Your task to perform on an android device: turn off improve location accuracy Image 0: 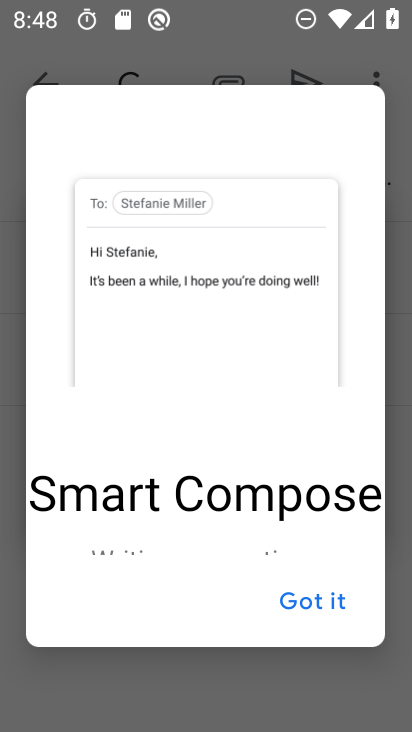
Step 0: press home button
Your task to perform on an android device: turn off improve location accuracy Image 1: 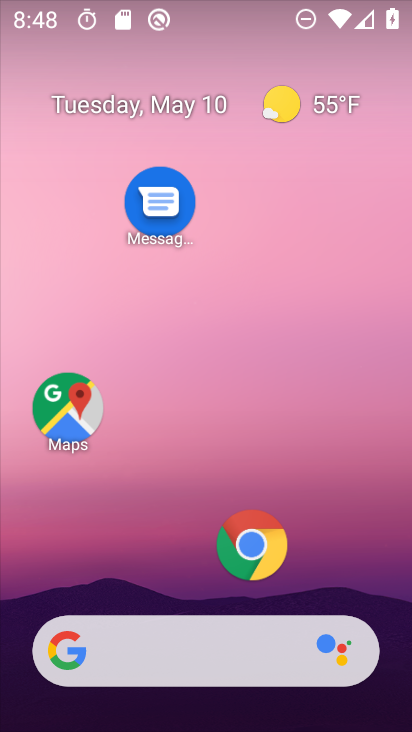
Step 1: drag from (165, 551) to (203, 88)
Your task to perform on an android device: turn off improve location accuracy Image 2: 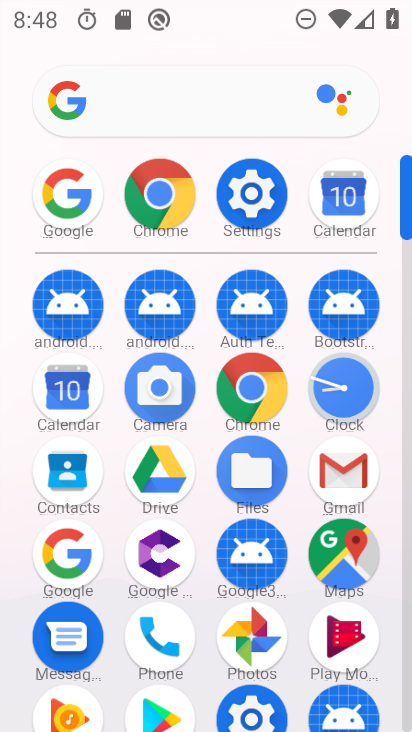
Step 2: click (237, 186)
Your task to perform on an android device: turn off improve location accuracy Image 3: 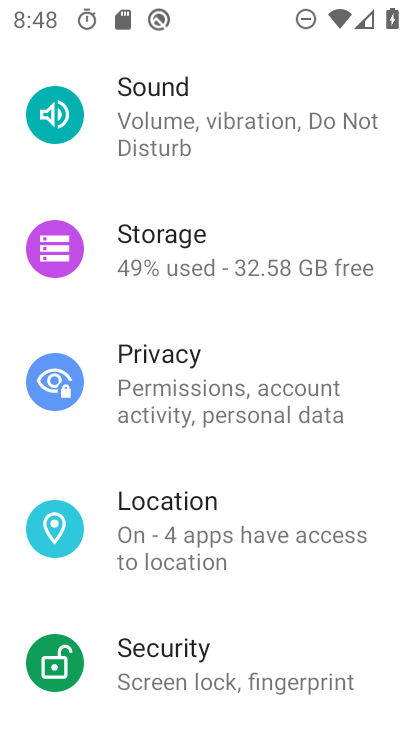
Step 3: click (175, 537)
Your task to perform on an android device: turn off improve location accuracy Image 4: 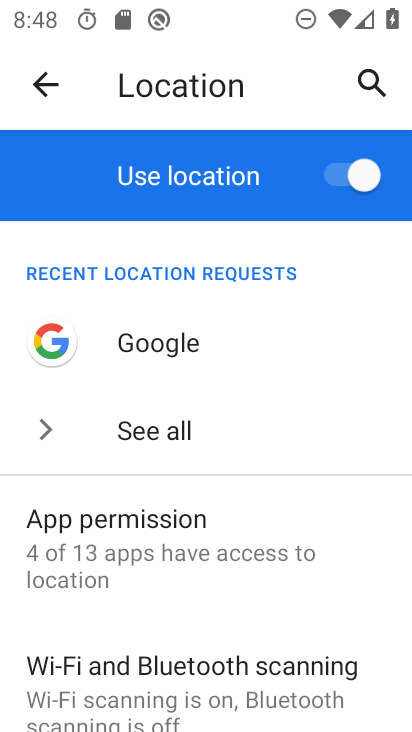
Step 4: drag from (164, 631) to (263, 322)
Your task to perform on an android device: turn off improve location accuracy Image 5: 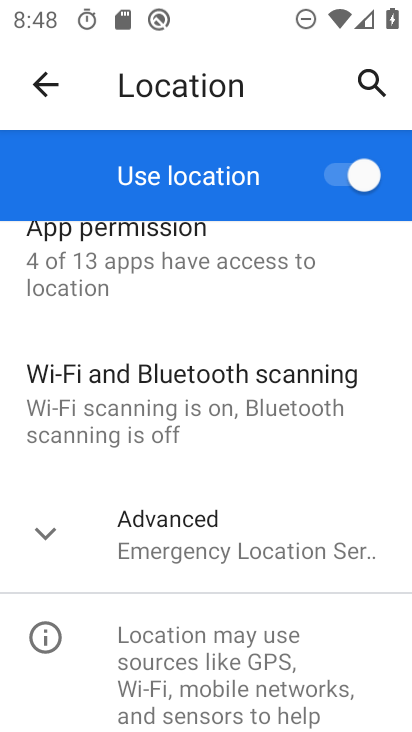
Step 5: click (191, 524)
Your task to perform on an android device: turn off improve location accuracy Image 6: 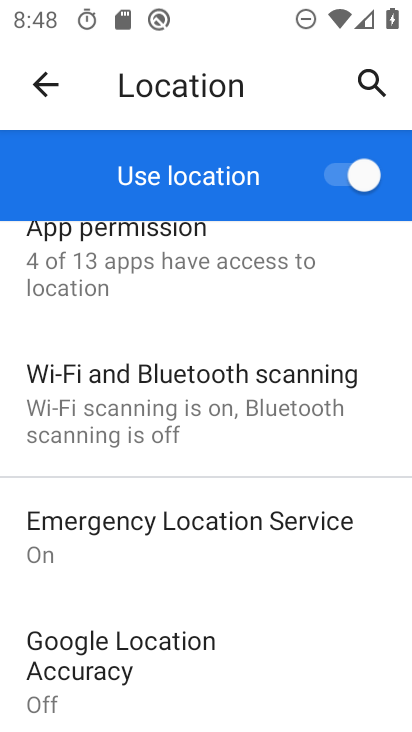
Step 6: drag from (165, 620) to (206, 416)
Your task to perform on an android device: turn off improve location accuracy Image 7: 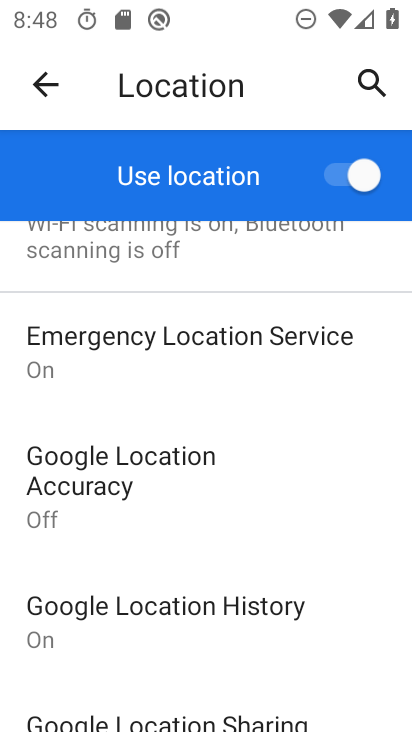
Step 7: drag from (210, 641) to (227, 435)
Your task to perform on an android device: turn off improve location accuracy Image 8: 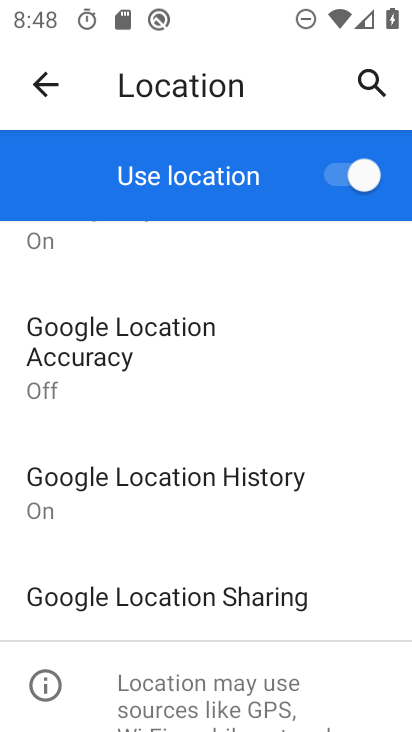
Step 8: click (148, 344)
Your task to perform on an android device: turn off improve location accuracy Image 9: 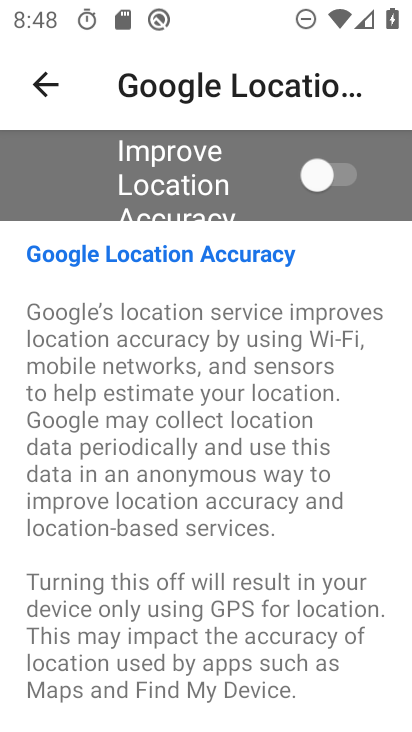
Step 9: task complete